Your task to perform on an android device: check data usage Image 0: 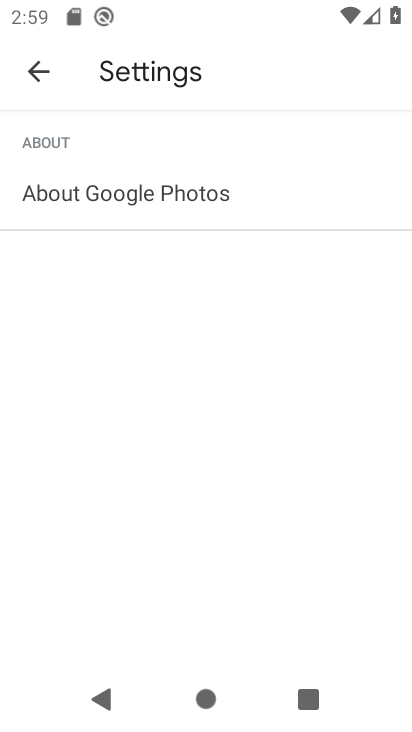
Step 0: task impossible